Your task to perform on an android device: Open Chrome and go to the settings page Image 0: 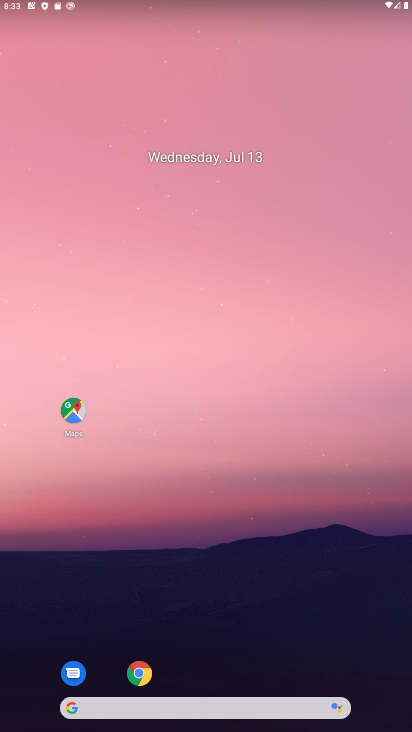
Step 0: drag from (305, 591) to (304, 133)
Your task to perform on an android device: Open Chrome and go to the settings page Image 1: 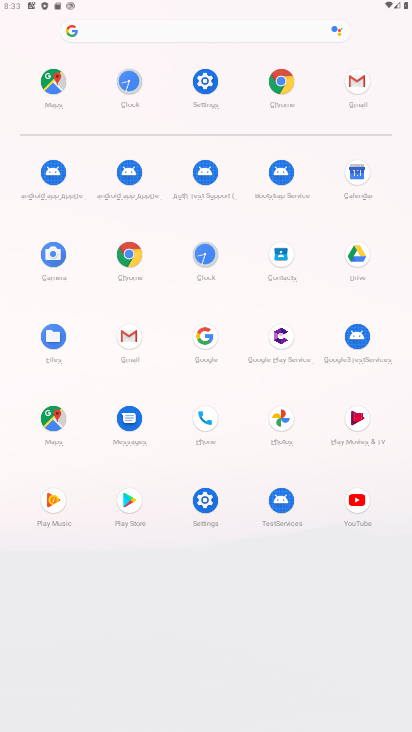
Step 1: click (129, 255)
Your task to perform on an android device: Open Chrome and go to the settings page Image 2: 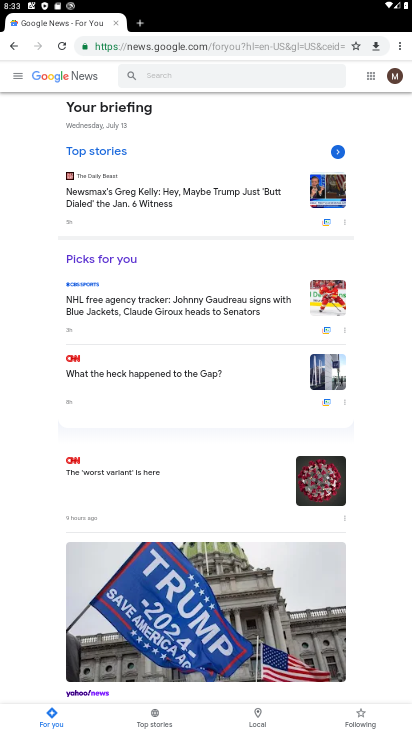
Step 2: task complete